Your task to perform on an android device: refresh tabs in the chrome app Image 0: 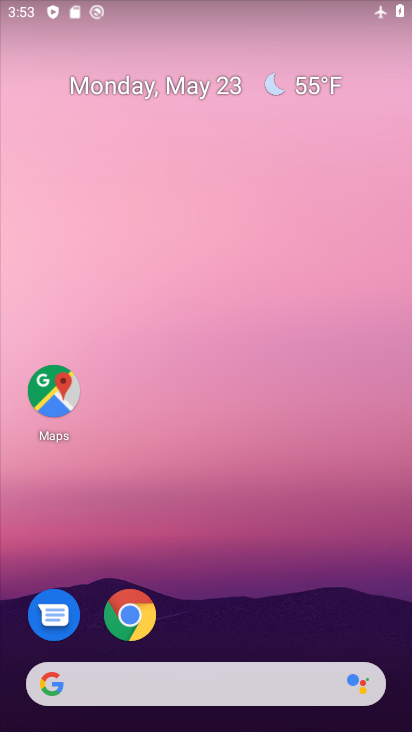
Step 0: drag from (383, 620) to (377, 182)
Your task to perform on an android device: refresh tabs in the chrome app Image 1: 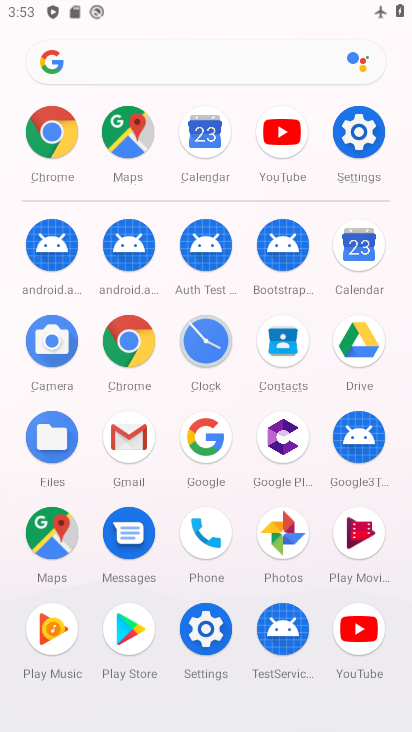
Step 1: click (137, 368)
Your task to perform on an android device: refresh tabs in the chrome app Image 2: 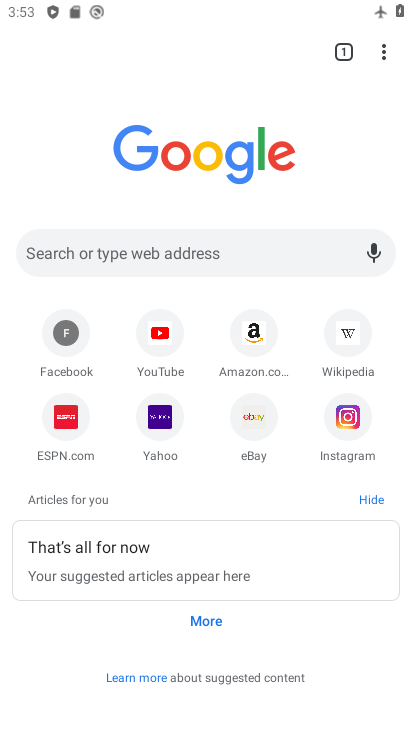
Step 2: click (389, 59)
Your task to perform on an android device: refresh tabs in the chrome app Image 3: 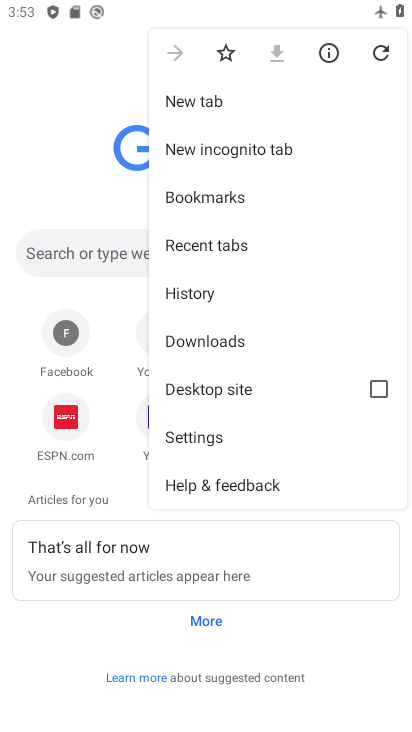
Step 3: click (379, 58)
Your task to perform on an android device: refresh tabs in the chrome app Image 4: 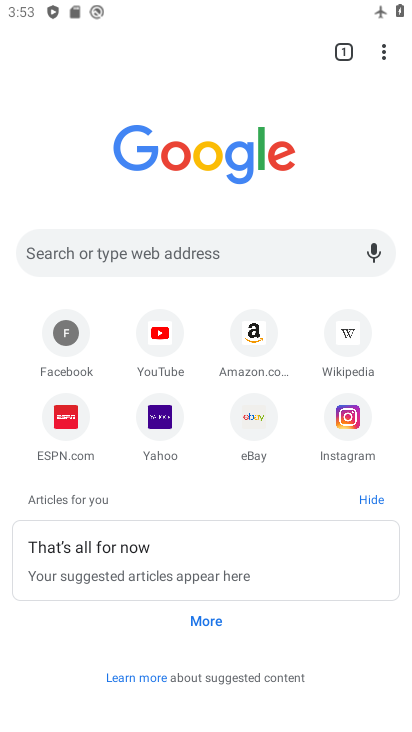
Step 4: task complete